Your task to perform on an android device: What's the weather going to be tomorrow? Image 0: 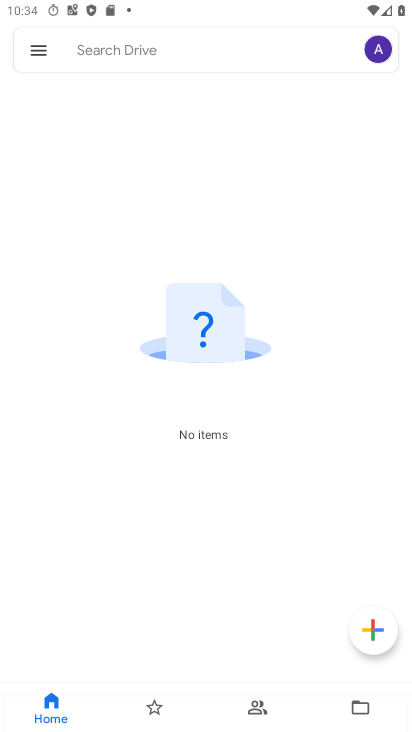
Step 0: press home button
Your task to perform on an android device: What's the weather going to be tomorrow? Image 1: 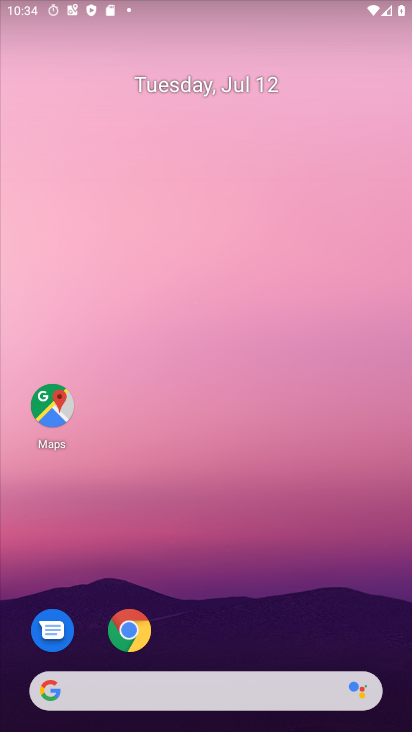
Step 1: drag from (193, 603) to (182, 208)
Your task to perform on an android device: What's the weather going to be tomorrow? Image 2: 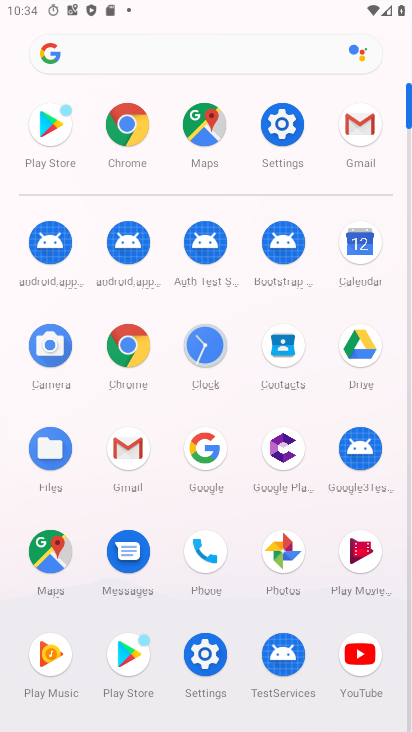
Step 2: click (202, 445)
Your task to perform on an android device: What's the weather going to be tomorrow? Image 3: 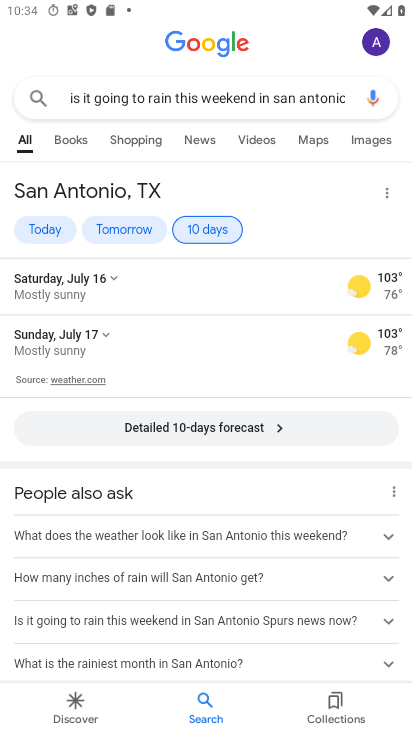
Step 3: click (168, 115)
Your task to perform on an android device: What's the weather going to be tomorrow? Image 4: 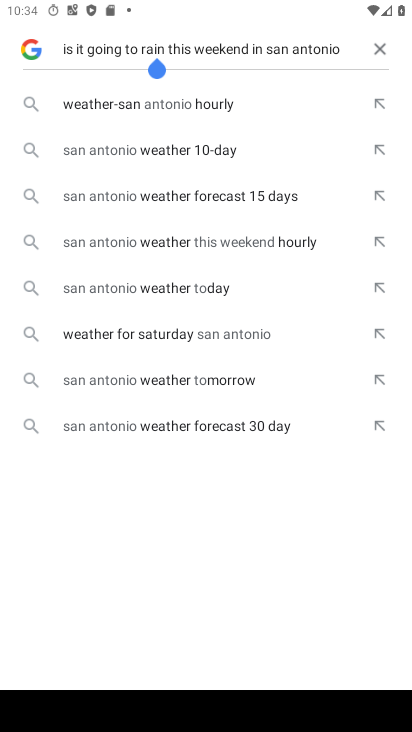
Step 4: click (383, 46)
Your task to perform on an android device: What's the weather going to be tomorrow? Image 5: 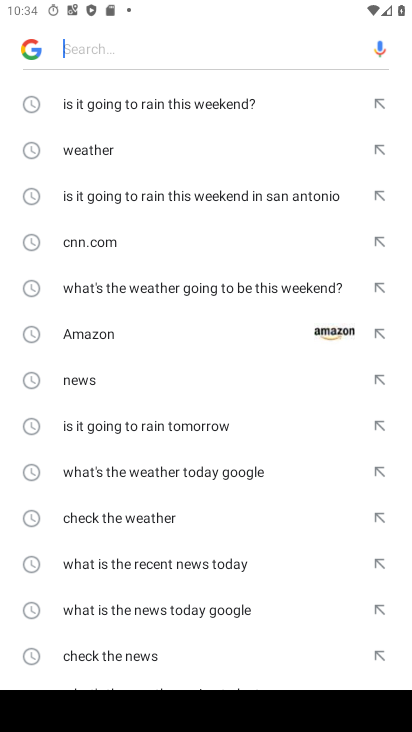
Step 5: drag from (228, 558) to (223, 484)
Your task to perform on an android device: What's the weather going to be tomorrow? Image 6: 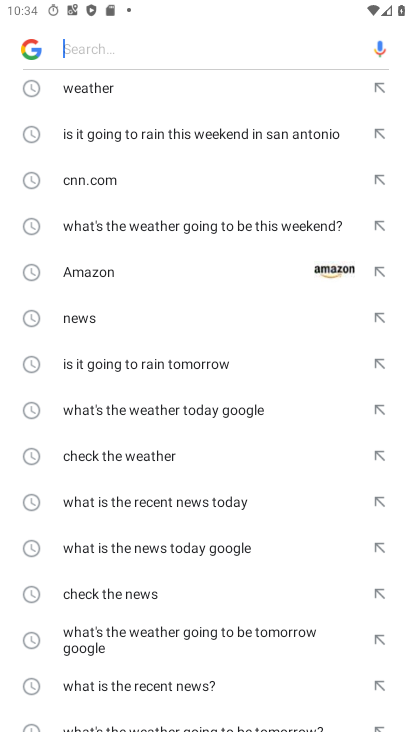
Step 6: drag from (199, 631) to (190, 563)
Your task to perform on an android device: What's the weather going to be tomorrow? Image 7: 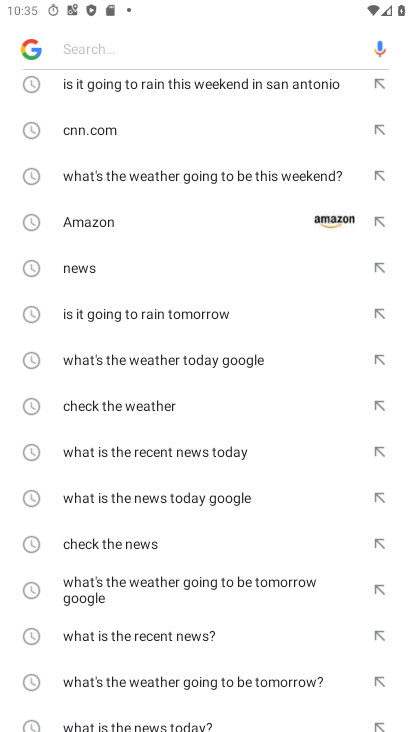
Step 7: click (178, 687)
Your task to perform on an android device: What's the weather going to be tomorrow? Image 8: 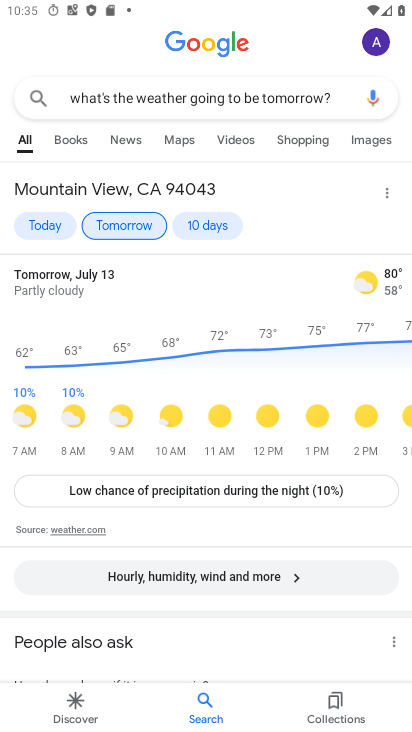
Step 8: task complete